Your task to perform on an android device: See recent photos Image 0: 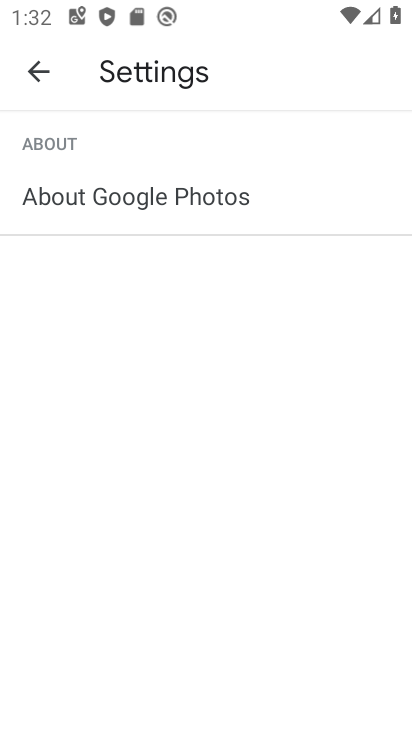
Step 0: click (48, 76)
Your task to perform on an android device: See recent photos Image 1: 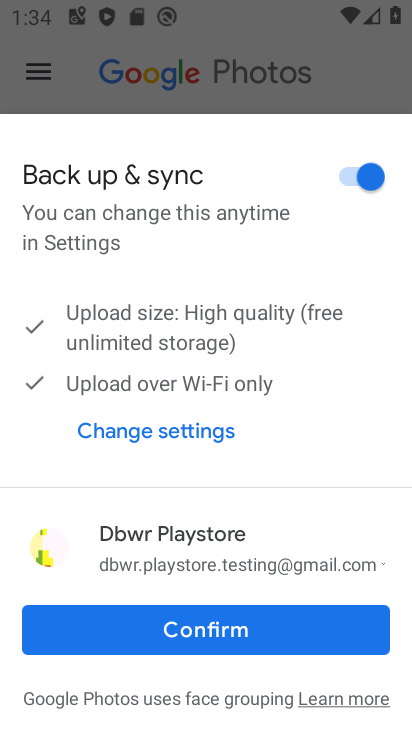
Step 1: click (276, 627)
Your task to perform on an android device: See recent photos Image 2: 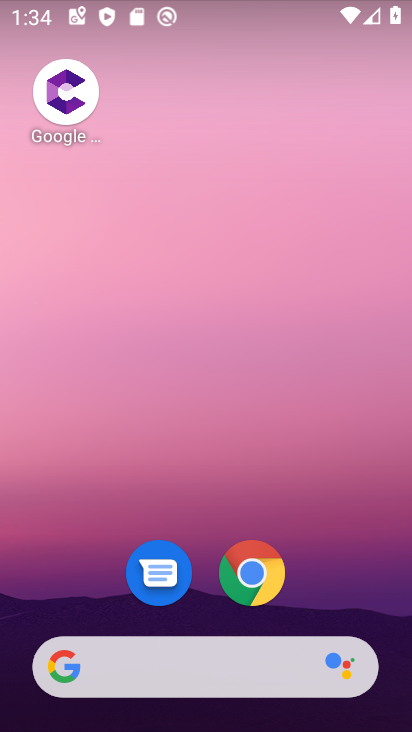
Step 2: drag from (208, 663) to (193, 175)
Your task to perform on an android device: See recent photos Image 3: 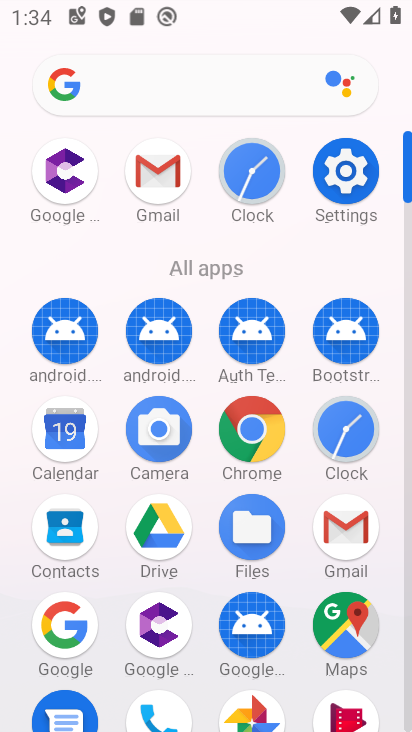
Step 3: click (246, 698)
Your task to perform on an android device: See recent photos Image 4: 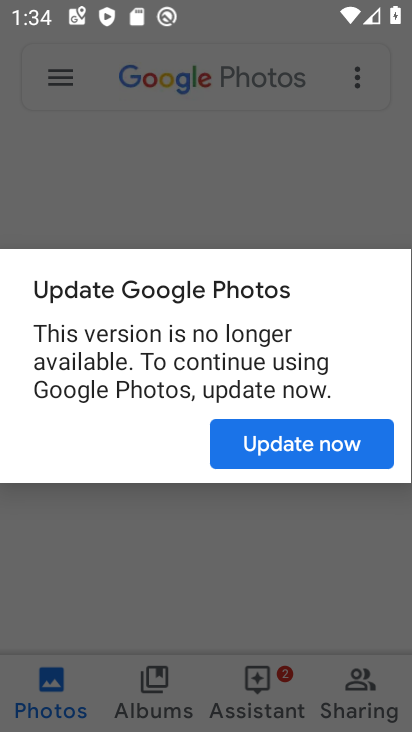
Step 4: click (282, 462)
Your task to perform on an android device: See recent photos Image 5: 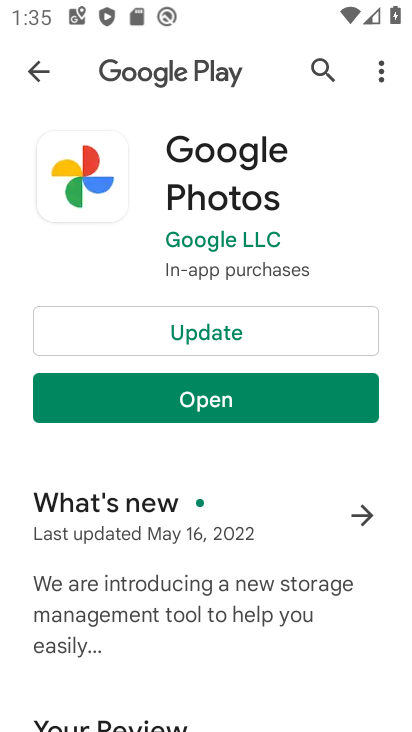
Step 5: click (217, 336)
Your task to perform on an android device: See recent photos Image 6: 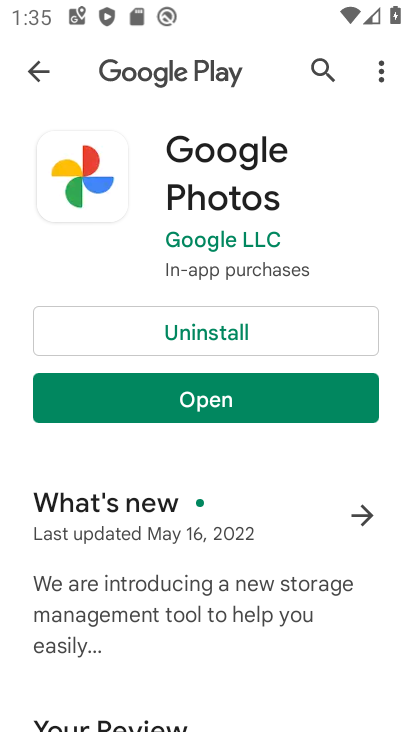
Step 6: click (270, 399)
Your task to perform on an android device: See recent photos Image 7: 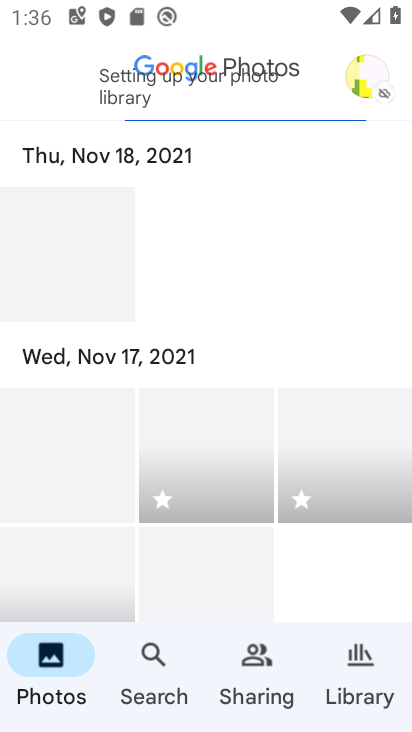
Step 7: task complete